Your task to perform on an android device: Find coffee shops on Maps Image 0: 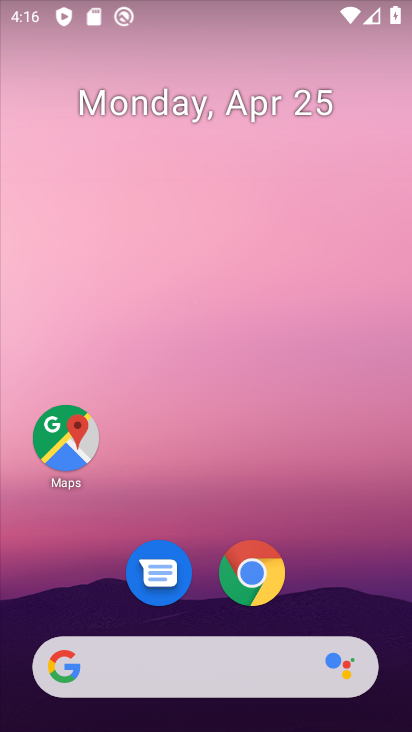
Step 0: click (55, 436)
Your task to perform on an android device: Find coffee shops on Maps Image 1: 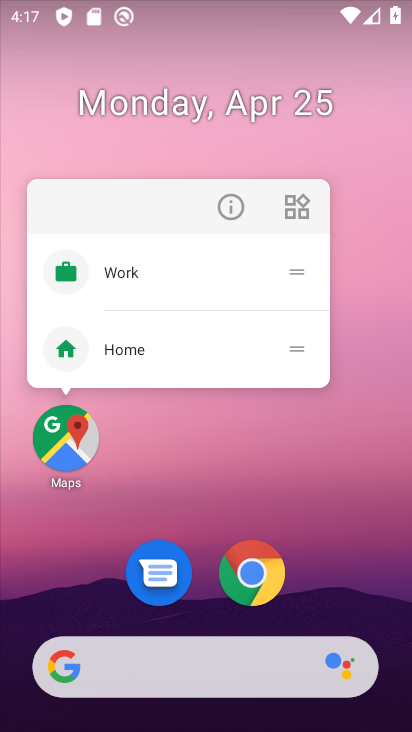
Step 1: click (55, 436)
Your task to perform on an android device: Find coffee shops on Maps Image 2: 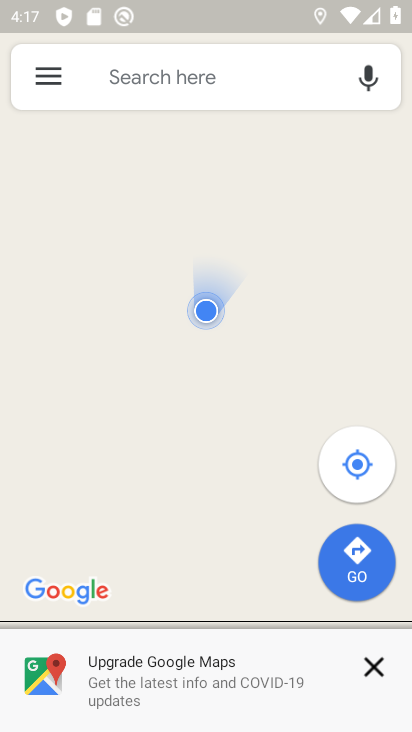
Step 2: click (119, 73)
Your task to perform on an android device: Find coffee shops on Maps Image 3: 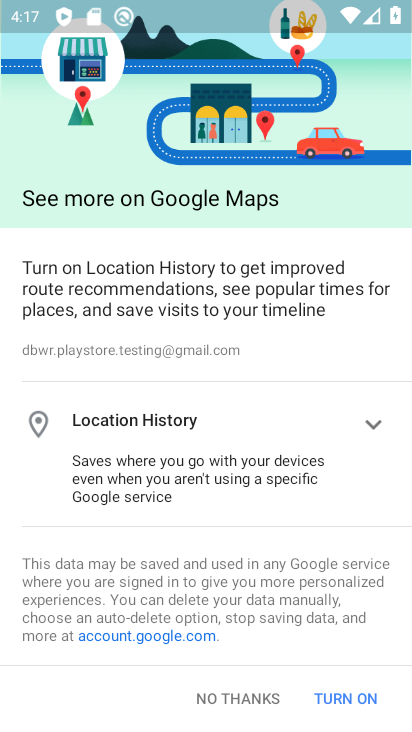
Step 3: click (245, 699)
Your task to perform on an android device: Find coffee shops on Maps Image 4: 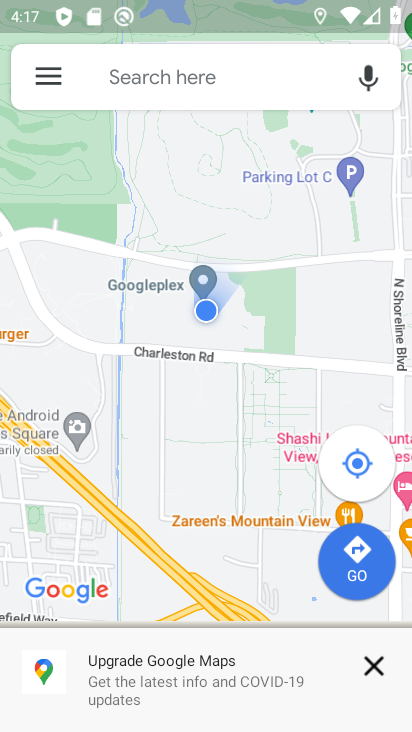
Step 4: click (157, 64)
Your task to perform on an android device: Find coffee shops on Maps Image 5: 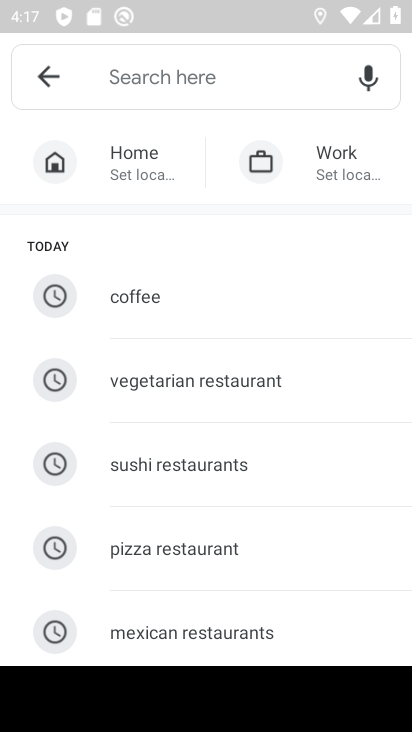
Step 5: drag from (144, 482) to (89, 140)
Your task to perform on an android device: Find coffee shops on Maps Image 6: 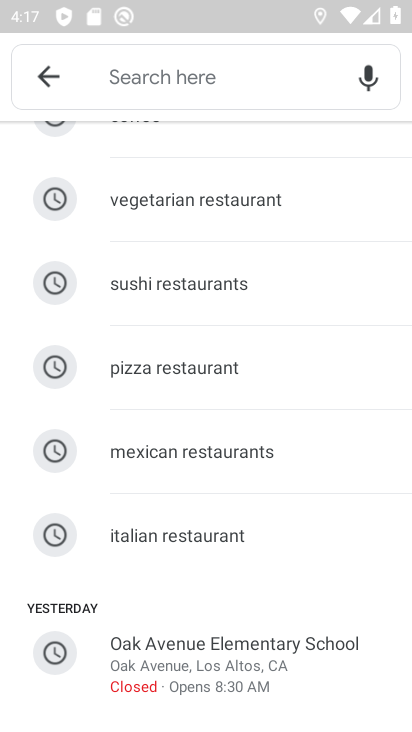
Step 6: click (173, 63)
Your task to perform on an android device: Find coffee shops on Maps Image 7: 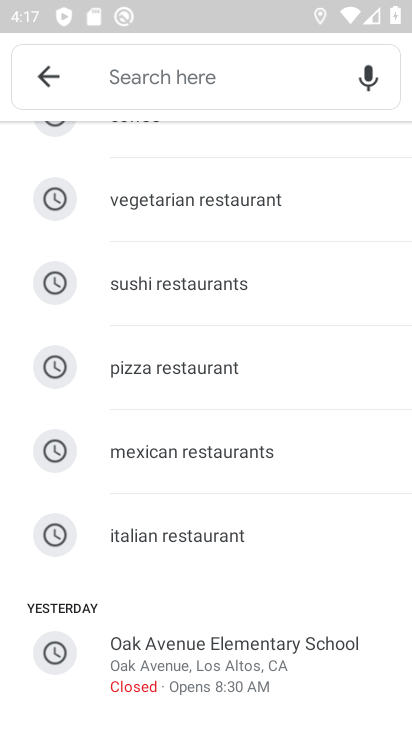
Step 7: click (172, 69)
Your task to perform on an android device: Find coffee shops on Maps Image 8: 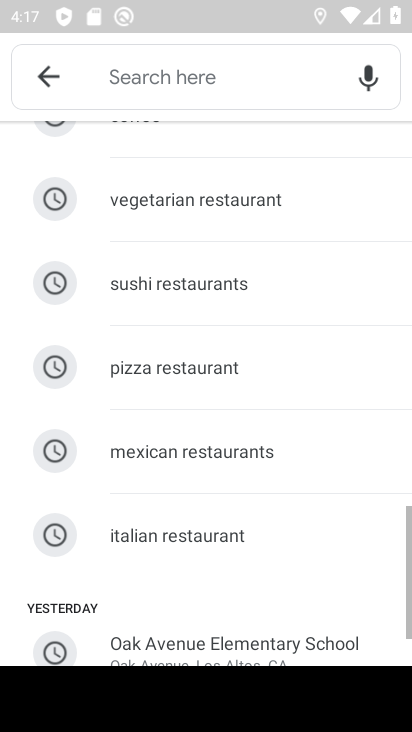
Step 8: click (169, 81)
Your task to perform on an android device: Find coffee shops on Maps Image 9: 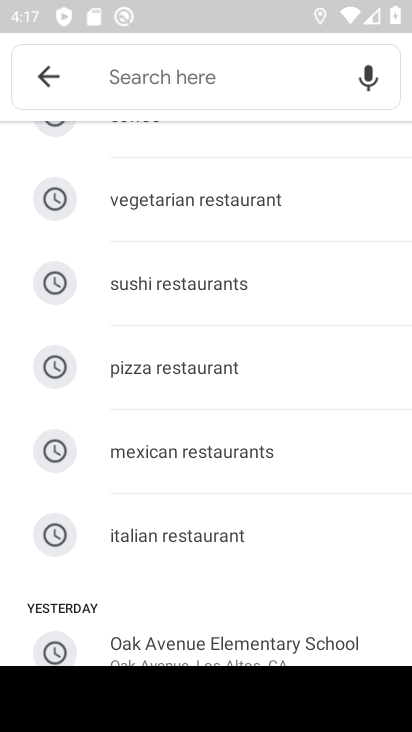
Step 9: type "coffee shops"
Your task to perform on an android device: Find coffee shops on Maps Image 10: 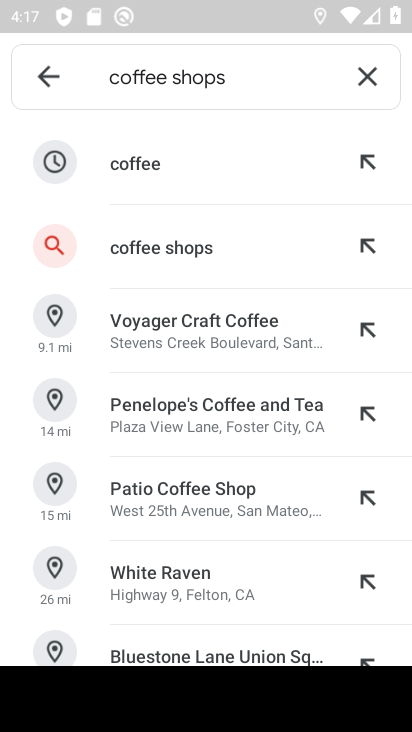
Step 10: click (181, 241)
Your task to perform on an android device: Find coffee shops on Maps Image 11: 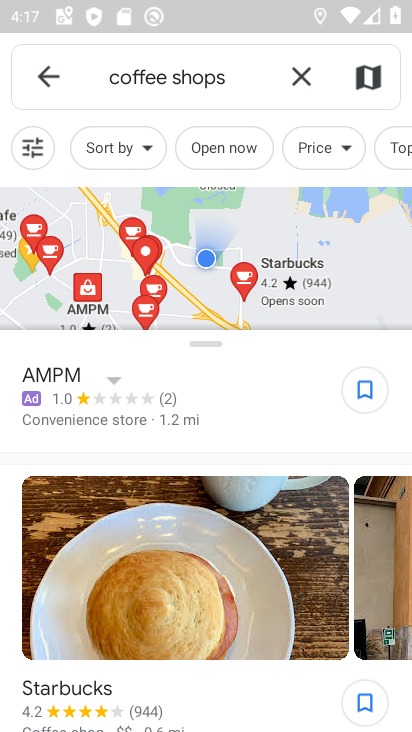
Step 11: task complete